Your task to perform on an android device: Go to ESPN.com Image 0: 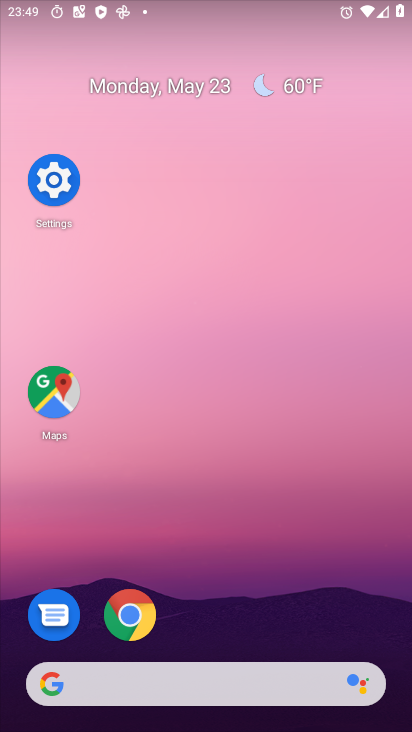
Step 0: drag from (202, 569) to (249, 117)
Your task to perform on an android device: Go to ESPN.com Image 1: 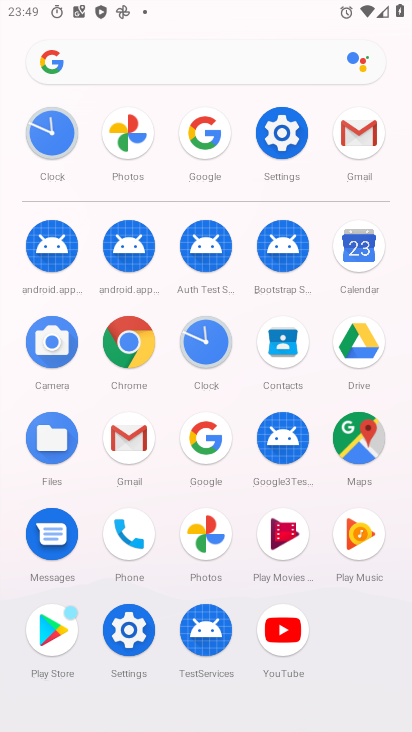
Step 1: click (206, 443)
Your task to perform on an android device: Go to ESPN.com Image 2: 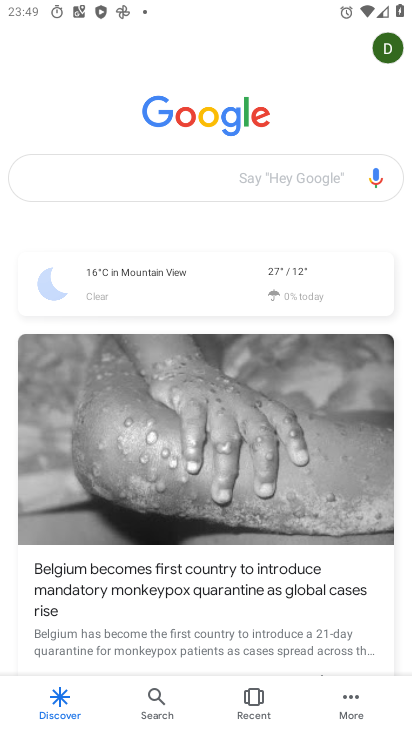
Step 2: click (187, 167)
Your task to perform on an android device: Go to ESPN.com Image 3: 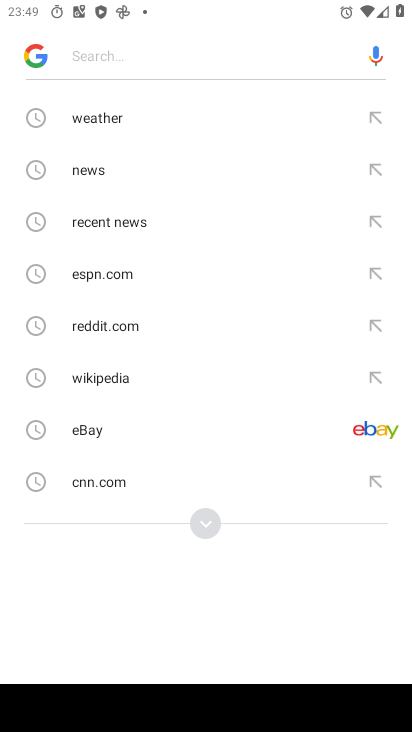
Step 3: click (118, 274)
Your task to perform on an android device: Go to ESPN.com Image 4: 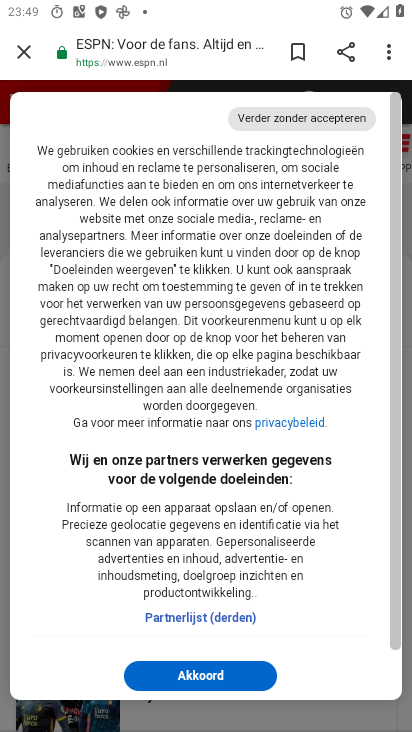
Step 4: task complete